Your task to perform on an android device: open app "Flipkart Online Shopping App" (install if not already installed) Image 0: 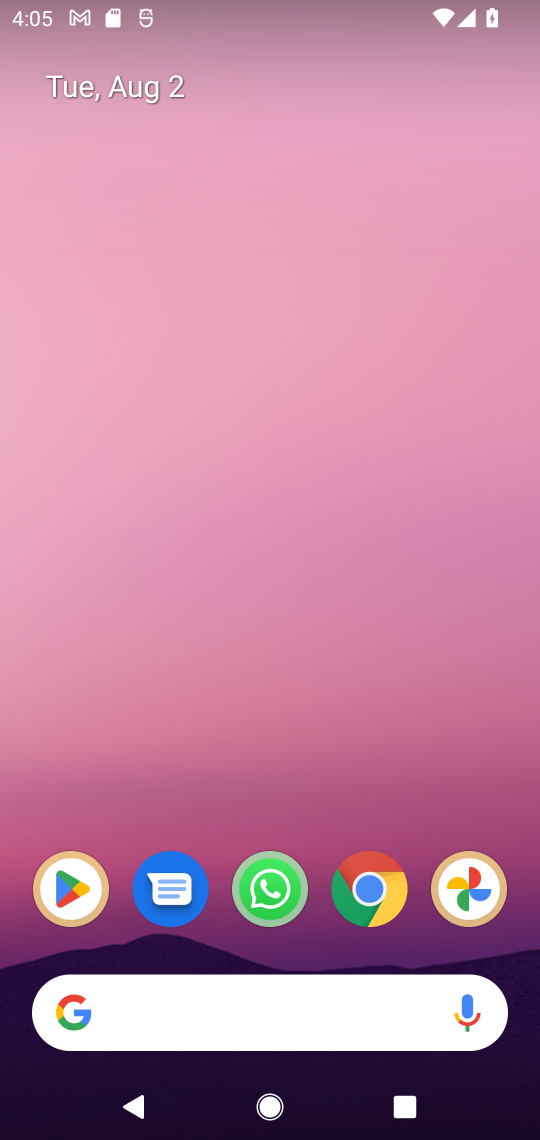
Step 0: press home button
Your task to perform on an android device: open app "Flipkart Online Shopping App" (install if not already installed) Image 1: 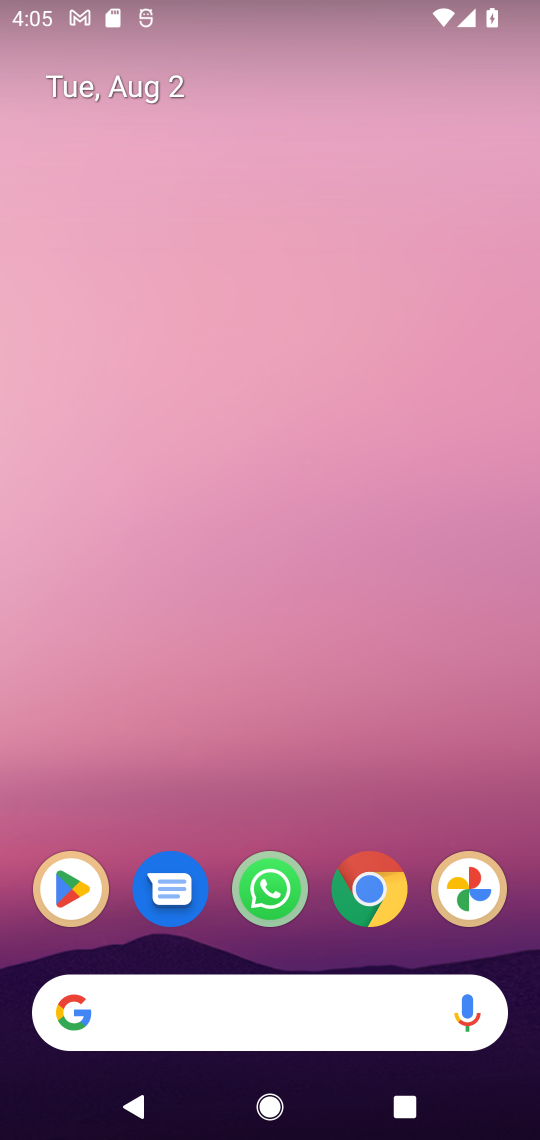
Step 1: drag from (401, 795) to (394, 129)
Your task to perform on an android device: open app "Flipkart Online Shopping App" (install if not already installed) Image 2: 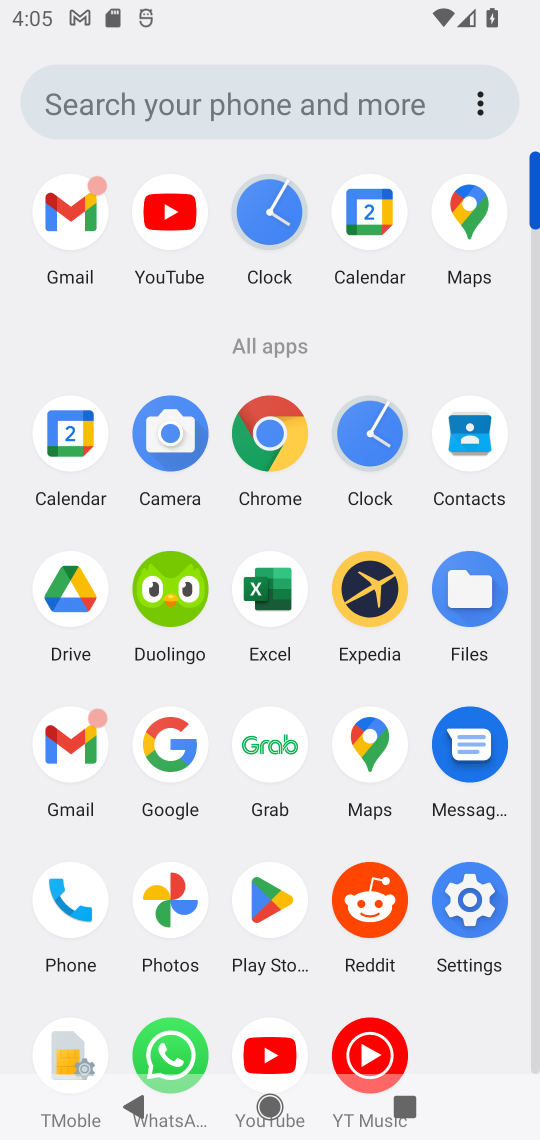
Step 2: click (270, 910)
Your task to perform on an android device: open app "Flipkart Online Shopping App" (install if not already installed) Image 3: 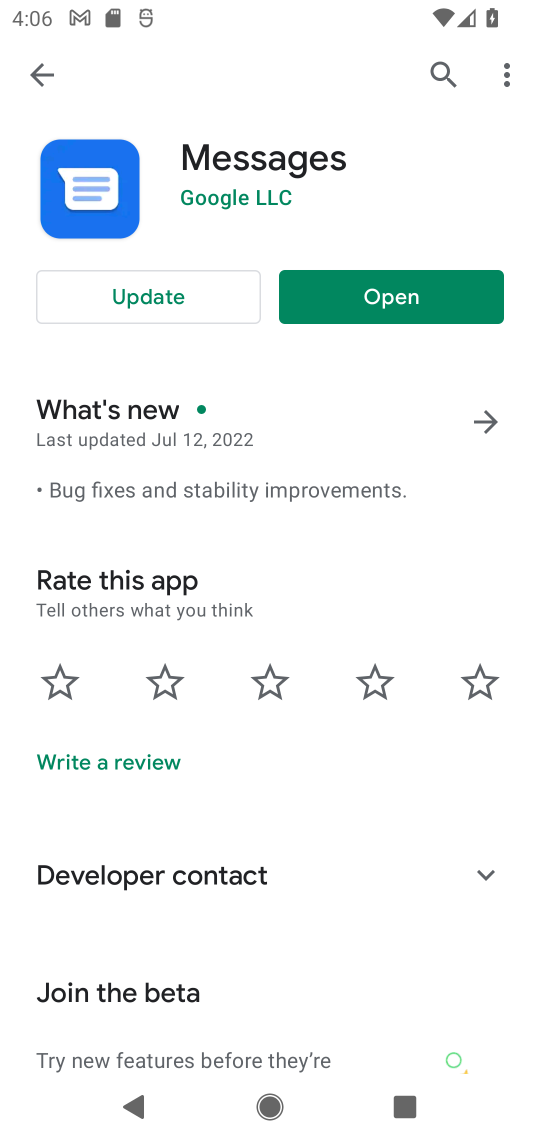
Step 3: click (443, 59)
Your task to perform on an android device: open app "Flipkart Online Shopping App" (install if not already installed) Image 4: 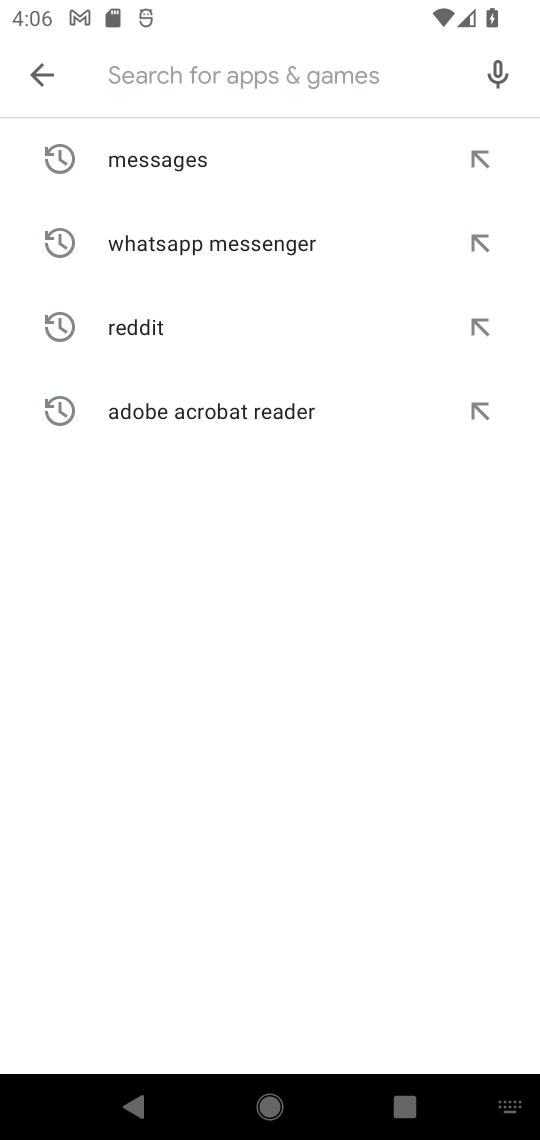
Step 4: type "Flipkart Online Shopping App"
Your task to perform on an android device: open app "Flipkart Online Shopping App" (install if not already installed) Image 5: 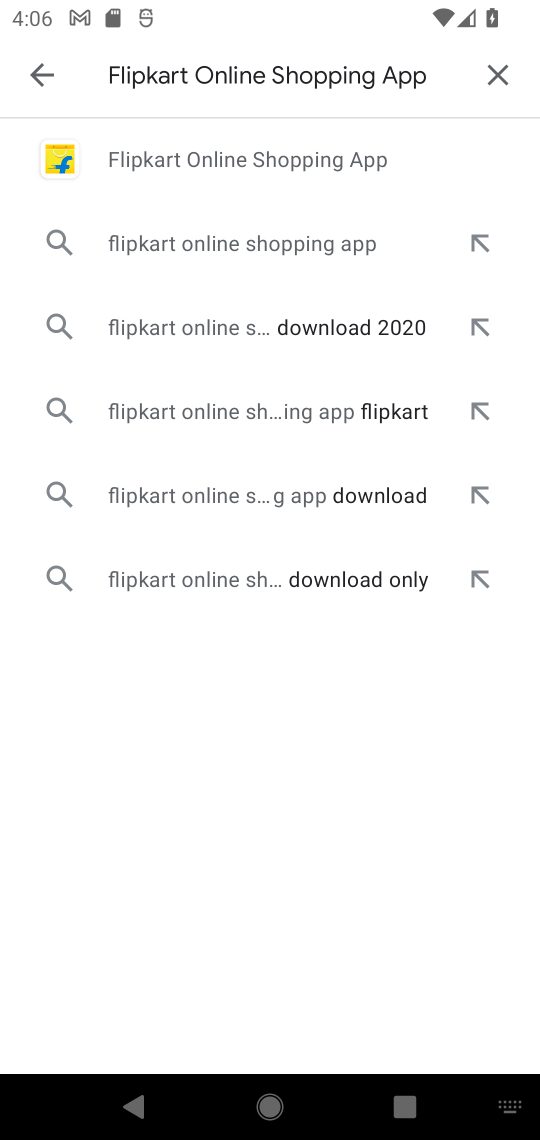
Step 5: click (282, 160)
Your task to perform on an android device: open app "Flipkart Online Shopping App" (install if not already installed) Image 6: 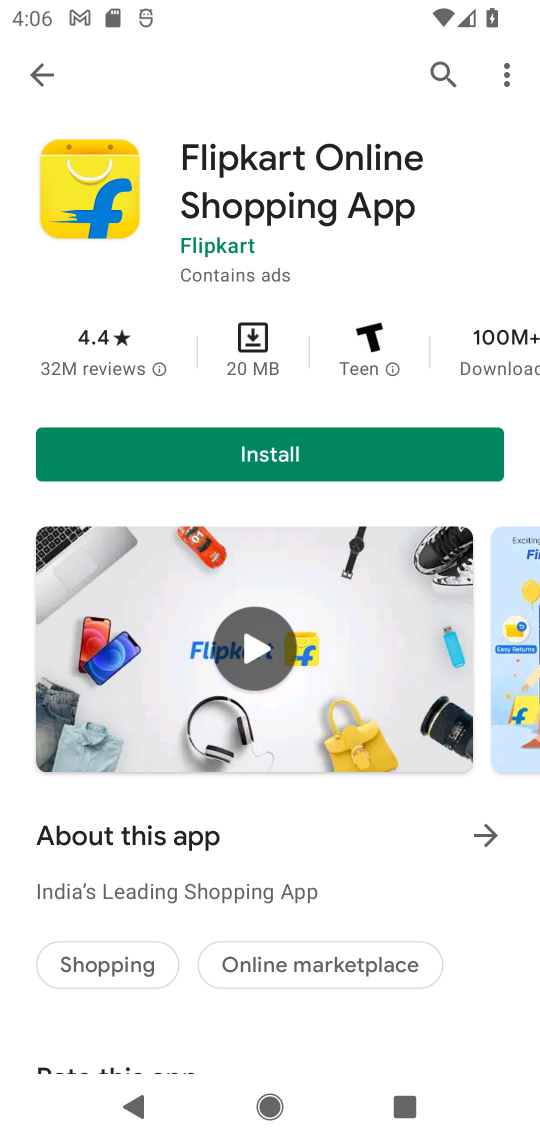
Step 6: click (324, 450)
Your task to perform on an android device: open app "Flipkart Online Shopping App" (install if not already installed) Image 7: 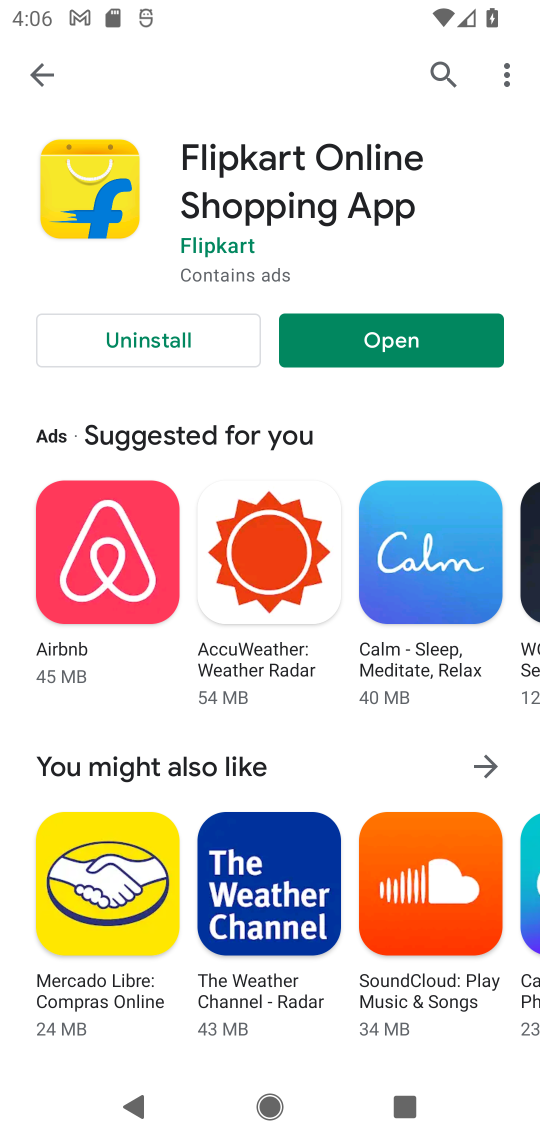
Step 7: click (437, 344)
Your task to perform on an android device: open app "Flipkart Online Shopping App" (install if not already installed) Image 8: 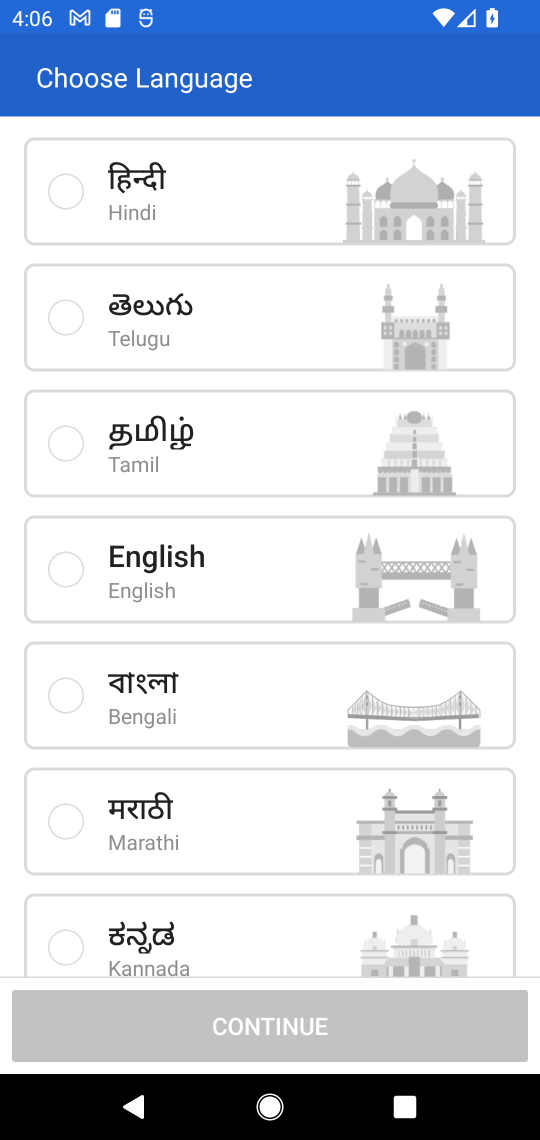
Step 8: task complete